Your task to perform on an android device: Open eBay Image 0: 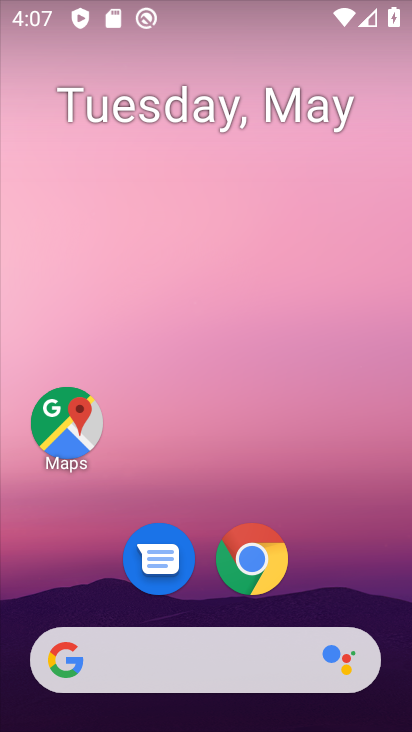
Step 0: click (253, 553)
Your task to perform on an android device: Open eBay Image 1: 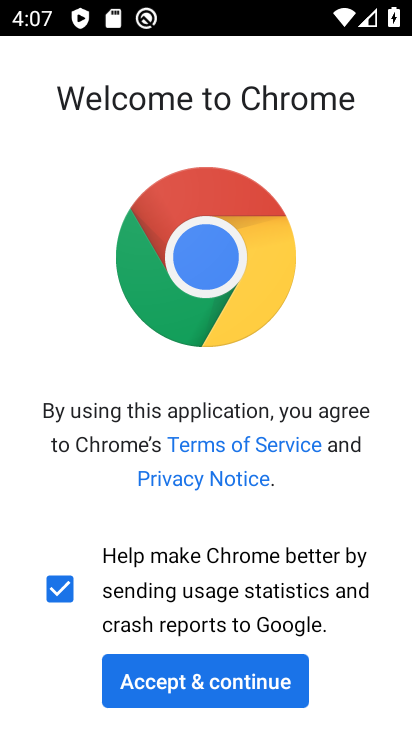
Step 1: click (243, 675)
Your task to perform on an android device: Open eBay Image 2: 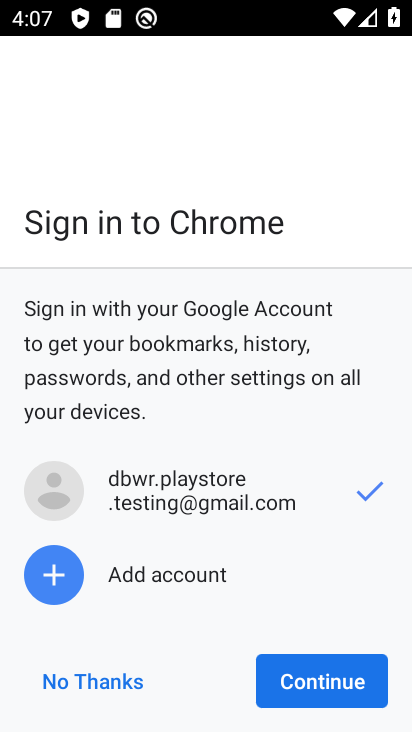
Step 2: click (283, 666)
Your task to perform on an android device: Open eBay Image 3: 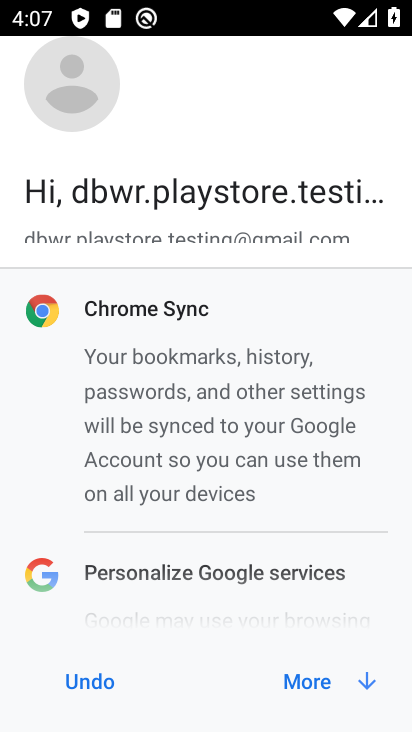
Step 3: click (298, 672)
Your task to perform on an android device: Open eBay Image 4: 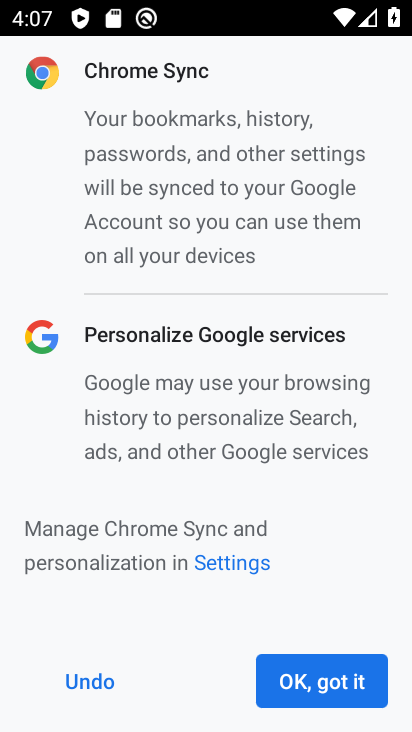
Step 4: click (313, 672)
Your task to perform on an android device: Open eBay Image 5: 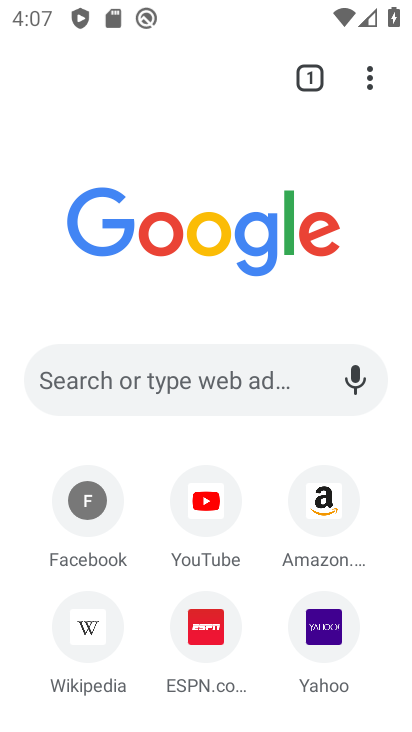
Step 5: click (211, 371)
Your task to perform on an android device: Open eBay Image 6: 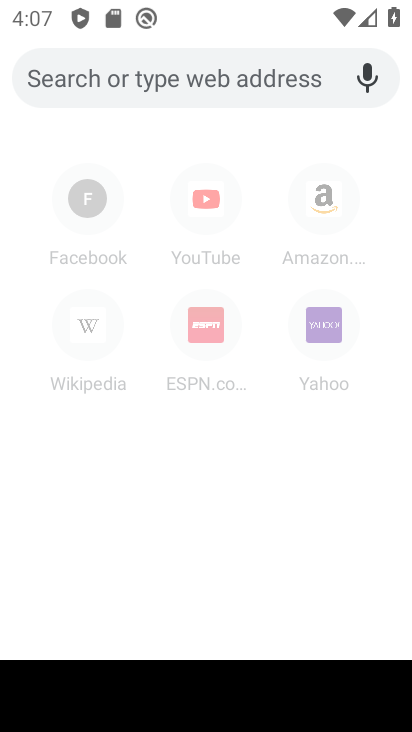
Step 6: type "ebay.com"
Your task to perform on an android device: Open eBay Image 7: 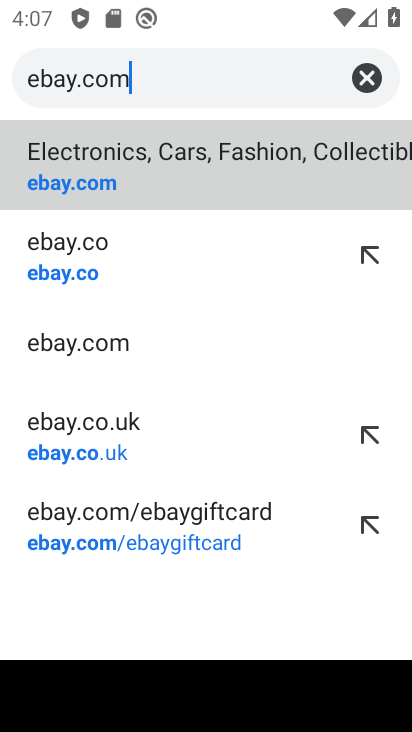
Step 7: type ""
Your task to perform on an android device: Open eBay Image 8: 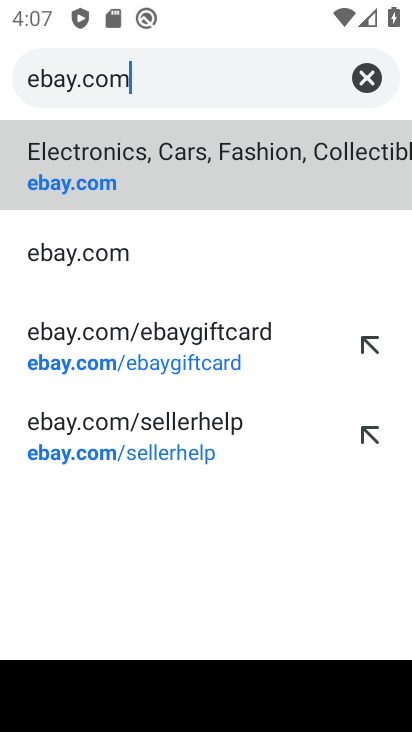
Step 8: click (142, 160)
Your task to perform on an android device: Open eBay Image 9: 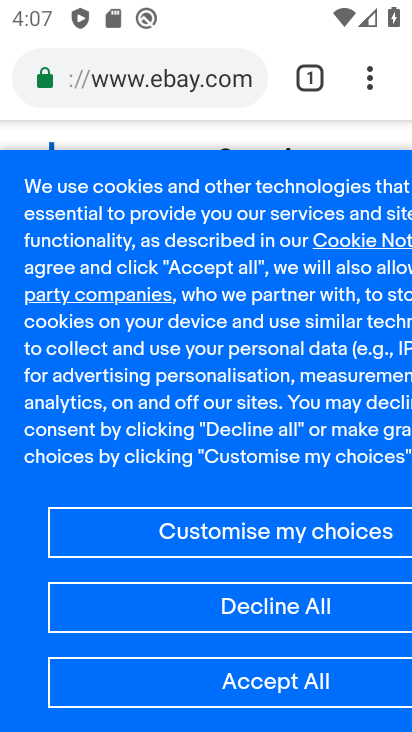
Step 9: click (275, 618)
Your task to perform on an android device: Open eBay Image 10: 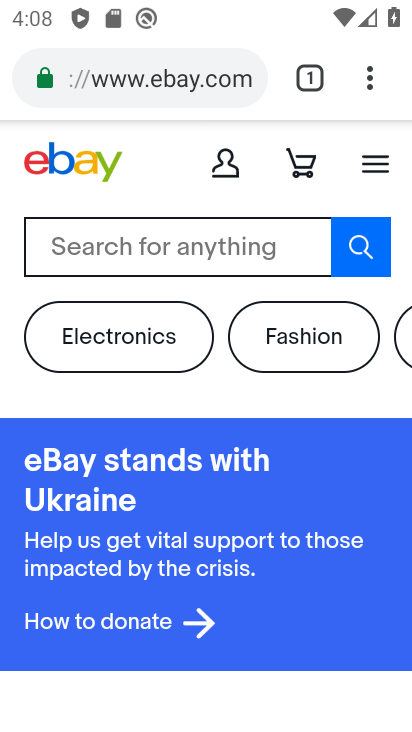
Step 10: task complete